Your task to perform on an android device: set the stopwatch Image 0: 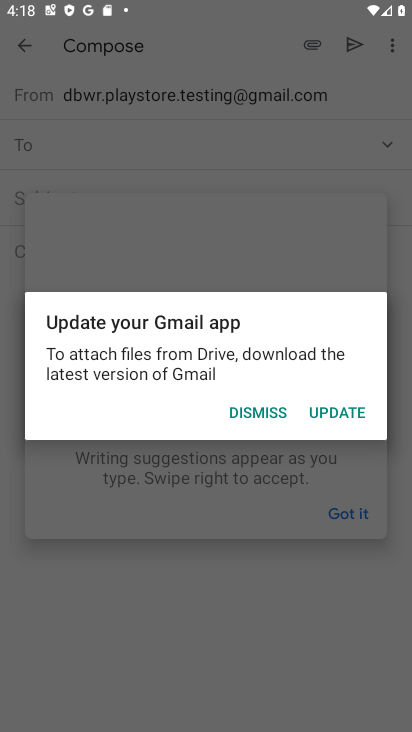
Step 0: press home button
Your task to perform on an android device: set the stopwatch Image 1: 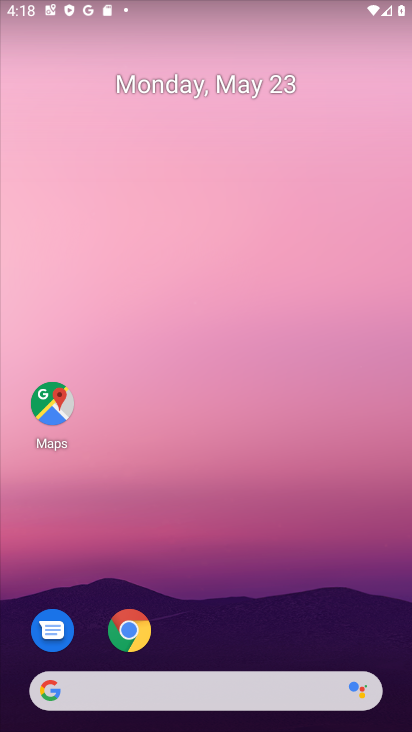
Step 1: drag from (202, 648) to (206, 52)
Your task to perform on an android device: set the stopwatch Image 2: 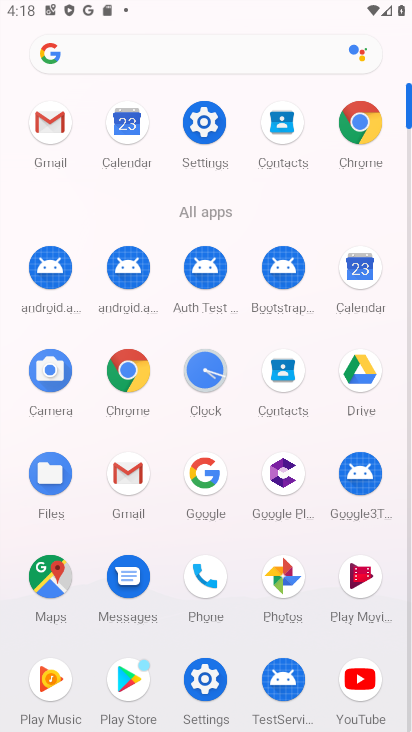
Step 2: click (204, 364)
Your task to perform on an android device: set the stopwatch Image 3: 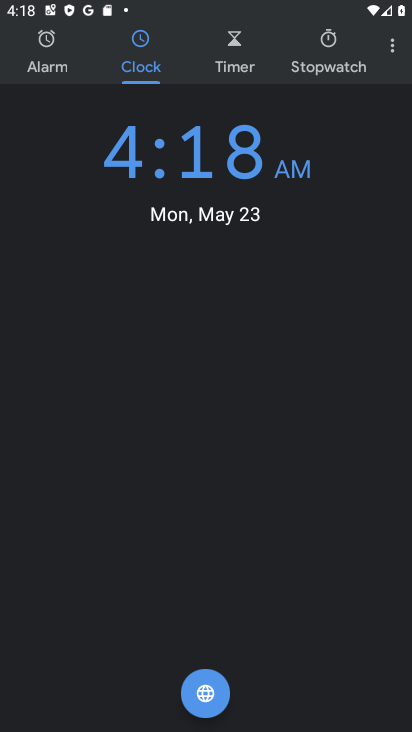
Step 3: click (326, 33)
Your task to perform on an android device: set the stopwatch Image 4: 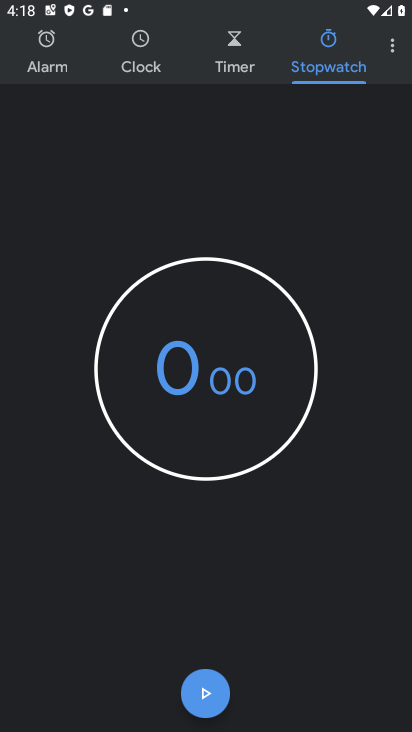
Step 4: click (203, 686)
Your task to perform on an android device: set the stopwatch Image 5: 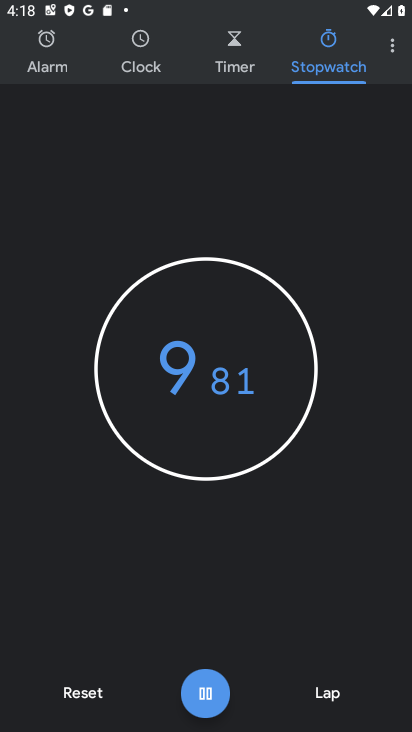
Step 5: click (80, 689)
Your task to perform on an android device: set the stopwatch Image 6: 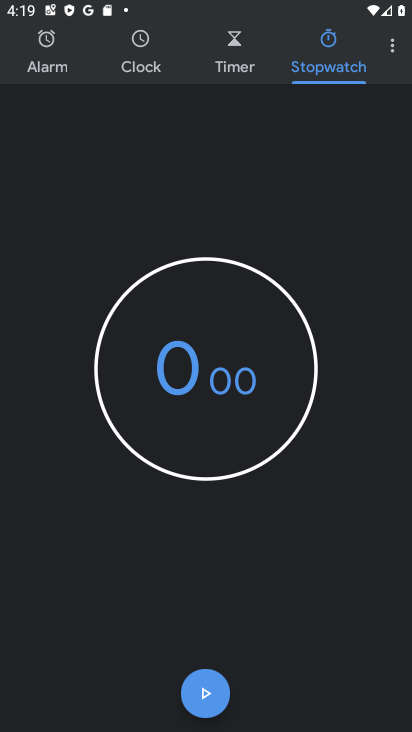
Step 6: task complete